Your task to perform on an android device: Open calendar and show me the third week of next month Image 0: 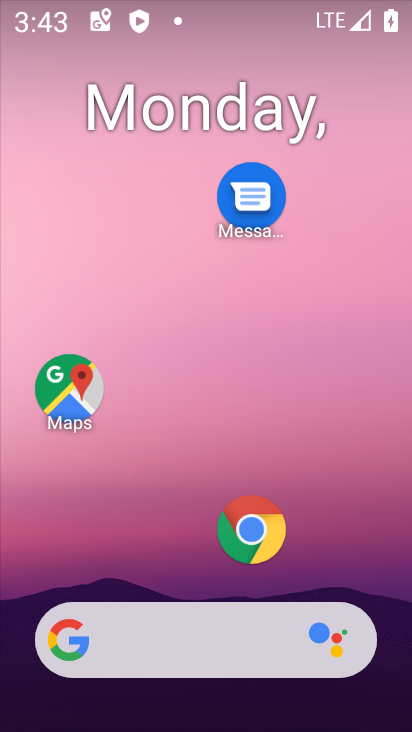
Step 0: drag from (154, 417) to (182, 47)
Your task to perform on an android device: Open calendar and show me the third week of next month Image 1: 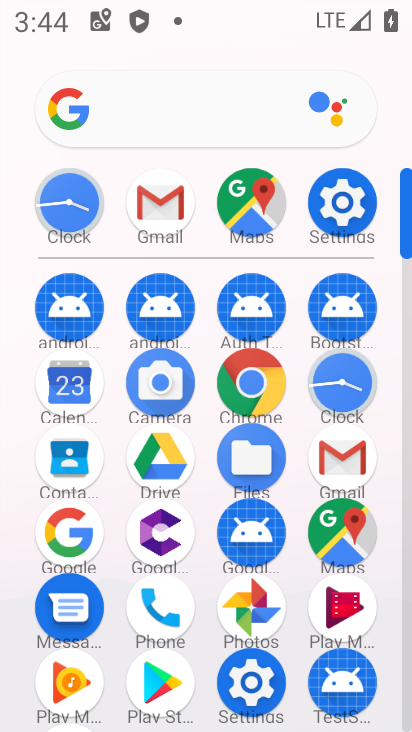
Step 1: click (72, 377)
Your task to perform on an android device: Open calendar and show me the third week of next month Image 2: 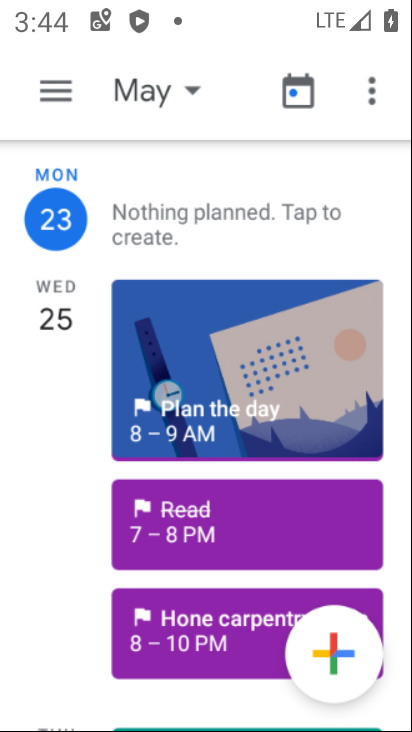
Step 2: click (144, 90)
Your task to perform on an android device: Open calendar and show me the third week of next month Image 3: 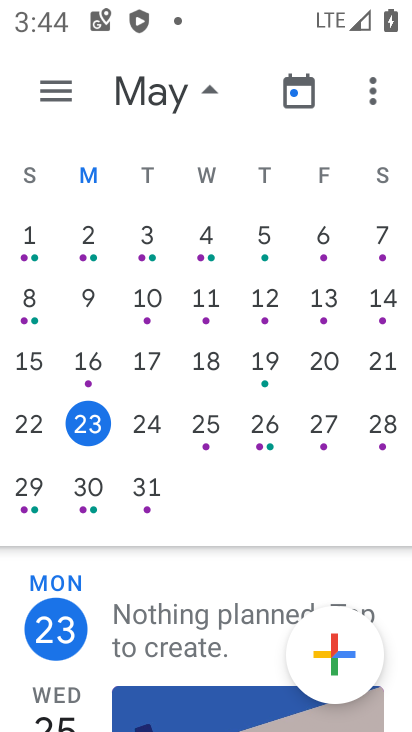
Step 3: drag from (389, 310) to (50, 328)
Your task to perform on an android device: Open calendar and show me the third week of next month Image 4: 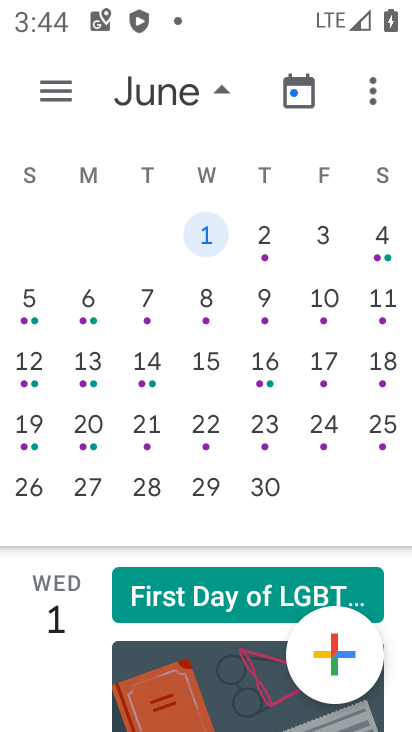
Step 4: click (82, 366)
Your task to perform on an android device: Open calendar and show me the third week of next month Image 5: 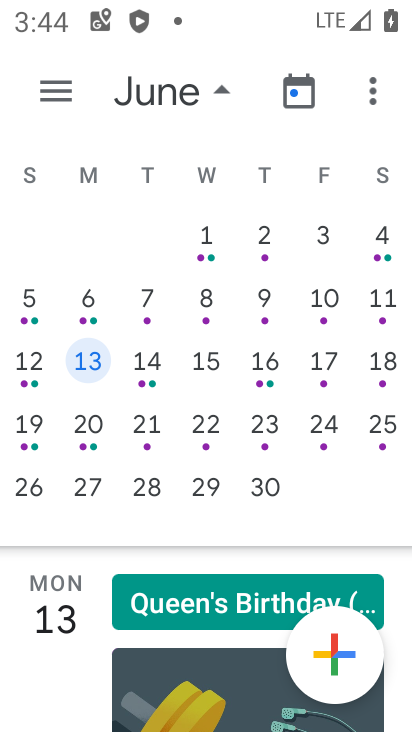
Step 5: task complete